Your task to perform on an android device: Open Youtube and go to "Your channel" Image 0: 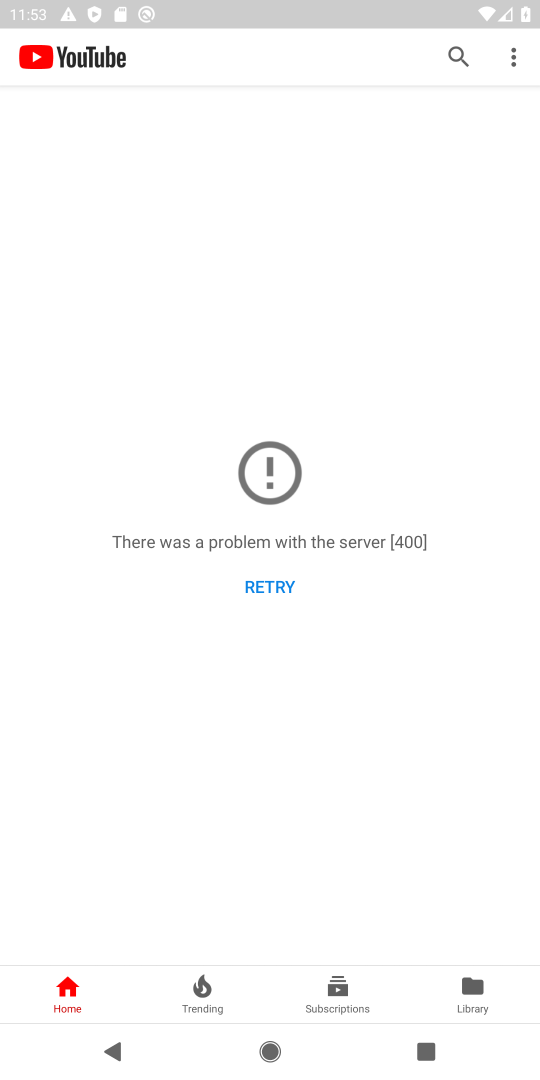
Step 0: click (270, 581)
Your task to perform on an android device: Open Youtube and go to "Your channel" Image 1: 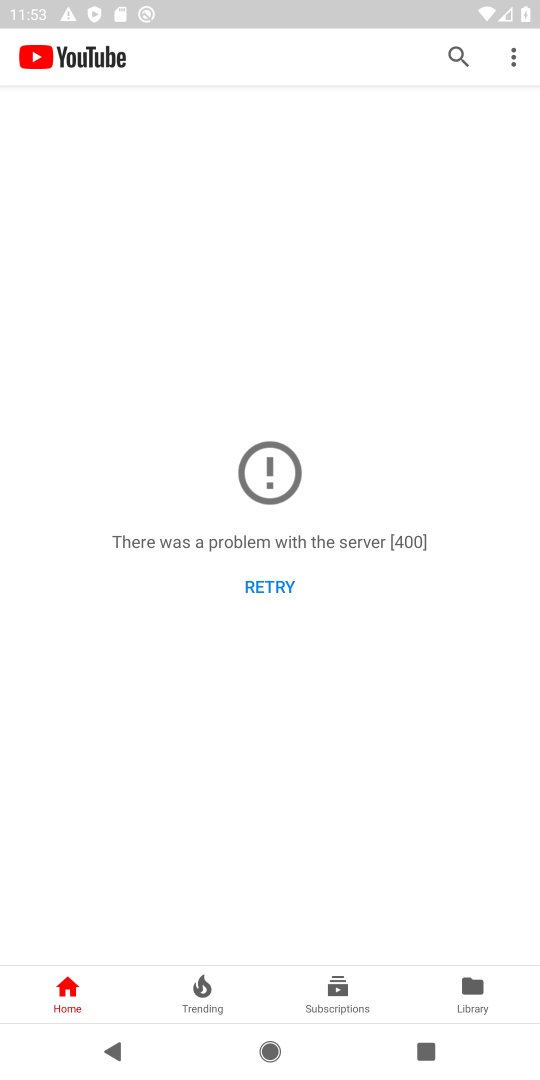
Step 1: click (270, 581)
Your task to perform on an android device: Open Youtube and go to "Your channel" Image 2: 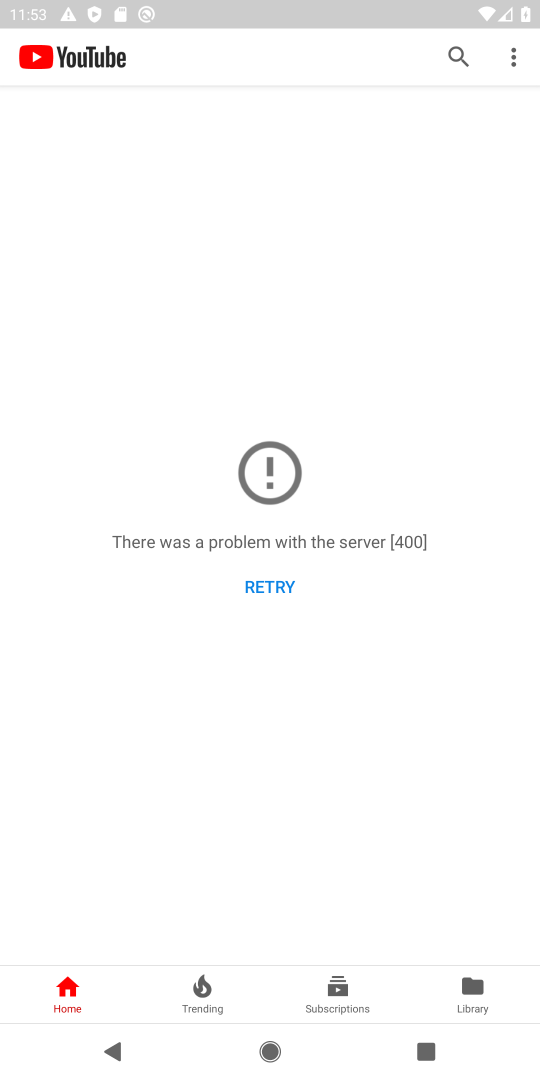
Step 2: task complete